Your task to perform on an android device: turn on showing notifications on the lock screen Image 0: 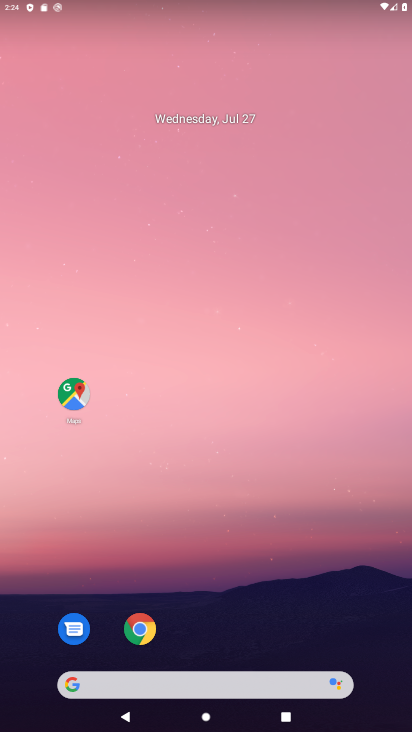
Step 0: drag from (187, 648) to (210, 109)
Your task to perform on an android device: turn on showing notifications on the lock screen Image 1: 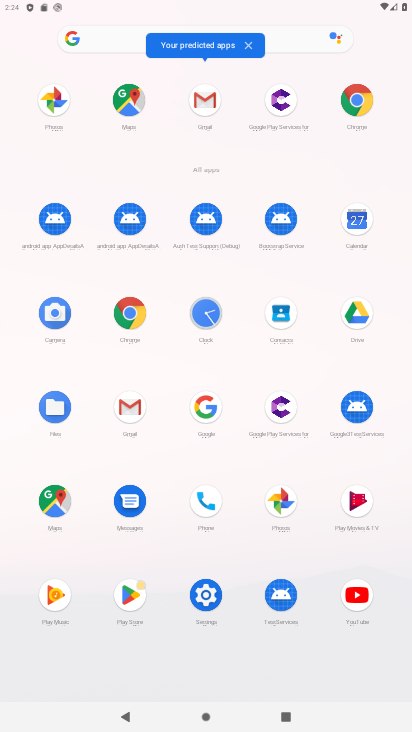
Step 1: click (202, 590)
Your task to perform on an android device: turn on showing notifications on the lock screen Image 2: 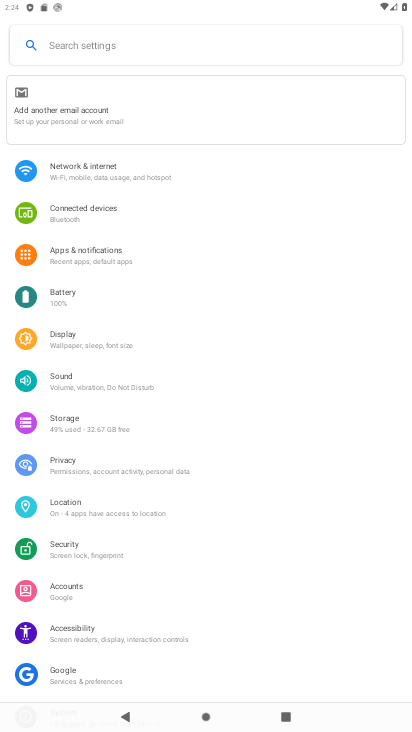
Step 2: click (151, 258)
Your task to perform on an android device: turn on showing notifications on the lock screen Image 3: 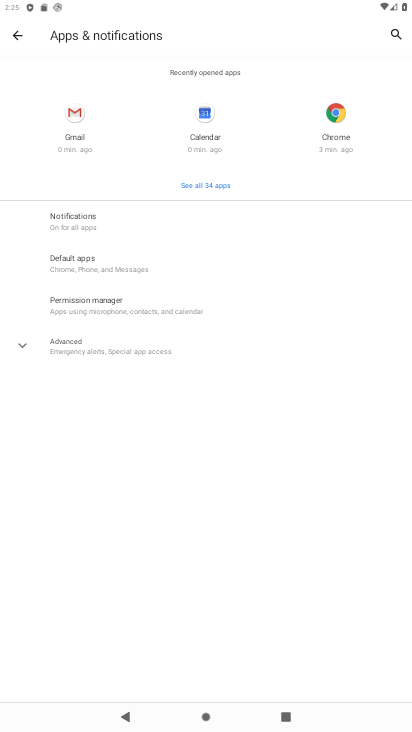
Step 3: click (95, 228)
Your task to perform on an android device: turn on showing notifications on the lock screen Image 4: 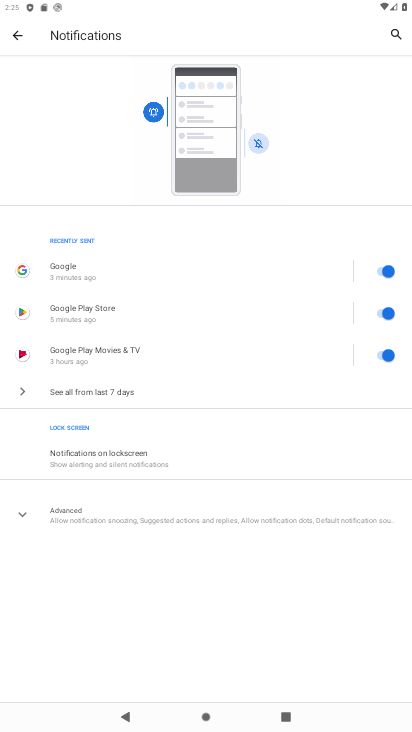
Step 4: click (118, 444)
Your task to perform on an android device: turn on showing notifications on the lock screen Image 5: 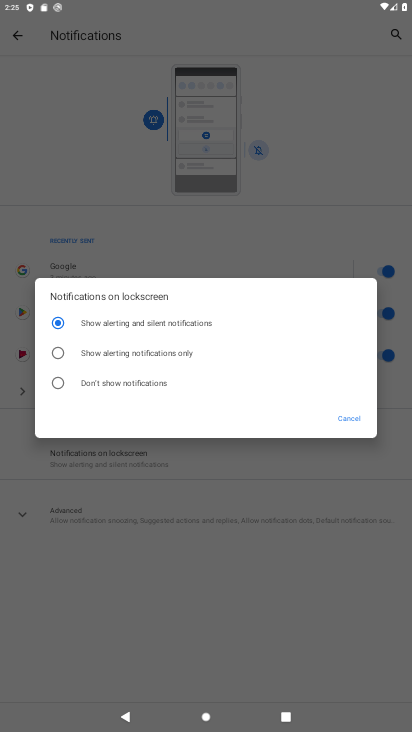
Step 5: task complete